Your task to perform on an android device: open a bookmark in the chrome app Image 0: 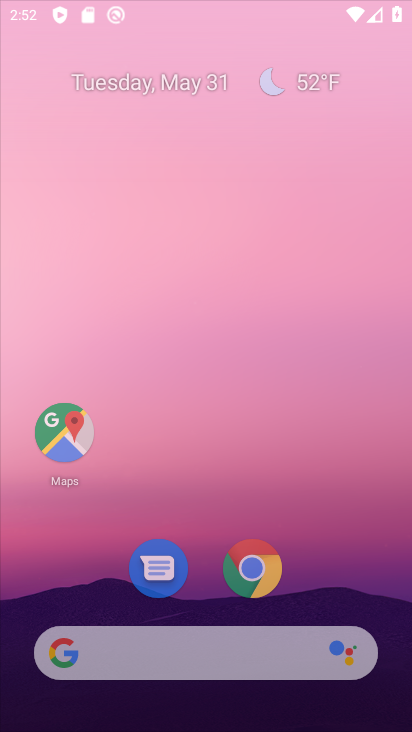
Step 0: click (229, 105)
Your task to perform on an android device: open a bookmark in the chrome app Image 1: 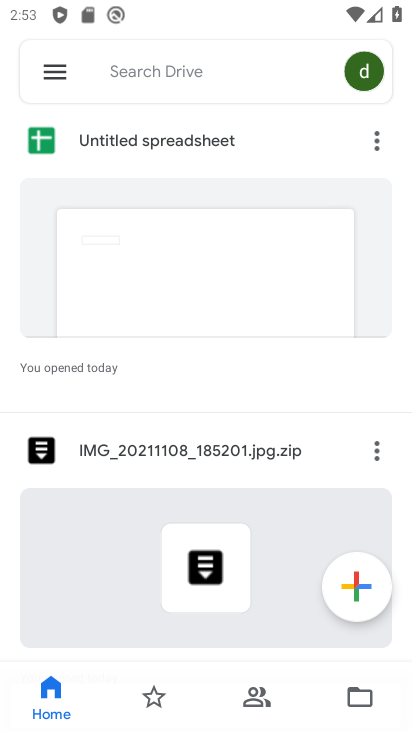
Step 1: press home button
Your task to perform on an android device: open a bookmark in the chrome app Image 2: 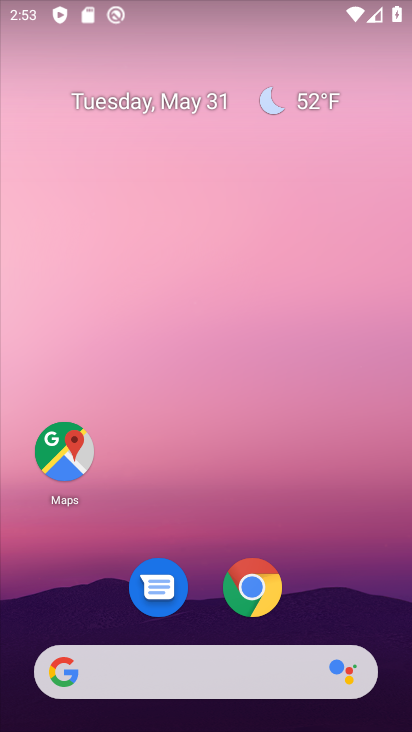
Step 2: click (261, 597)
Your task to perform on an android device: open a bookmark in the chrome app Image 3: 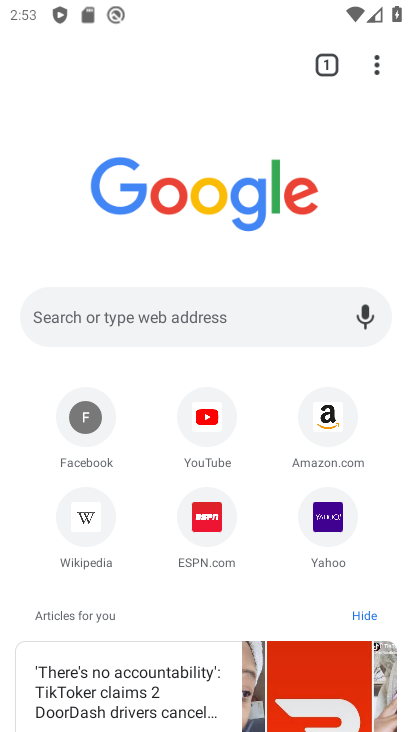
Step 3: click (376, 71)
Your task to perform on an android device: open a bookmark in the chrome app Image 4: 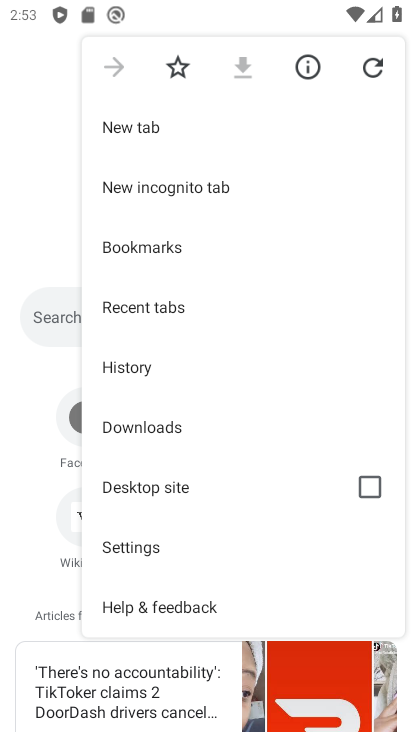
Step 4: click (191, 258)
Your task to perform on an android device: open a bookmark in the chrome app Image 5: 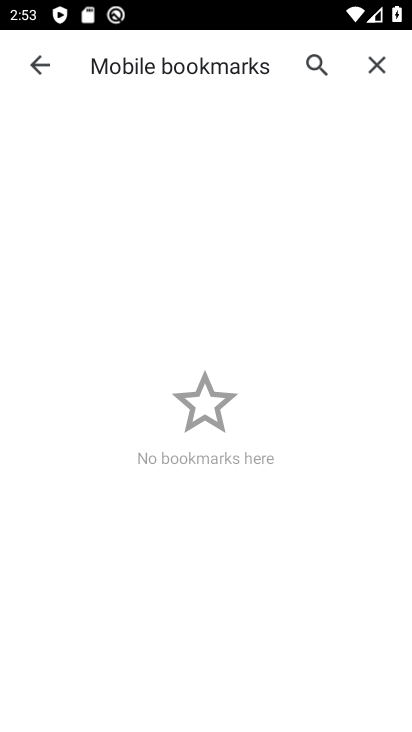
Step 5: task complete